Your task to perform on an android device: Show me productivity apps on the Play Store Image 0: 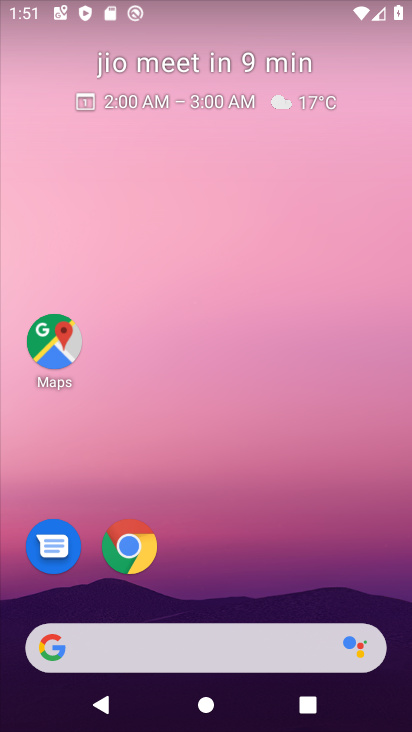
Step 0: drag from (347, 568) to (325, 63)
Your task to perform on an android device: Show me productivity apps on the Play Store Image 1: 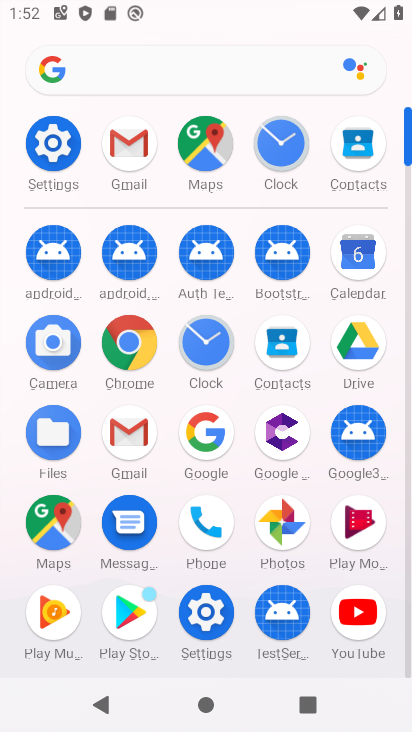
Step 1: click (126, 608)
Your task to perform on an android device: Show me productivity apps on the Play Store Image 2: 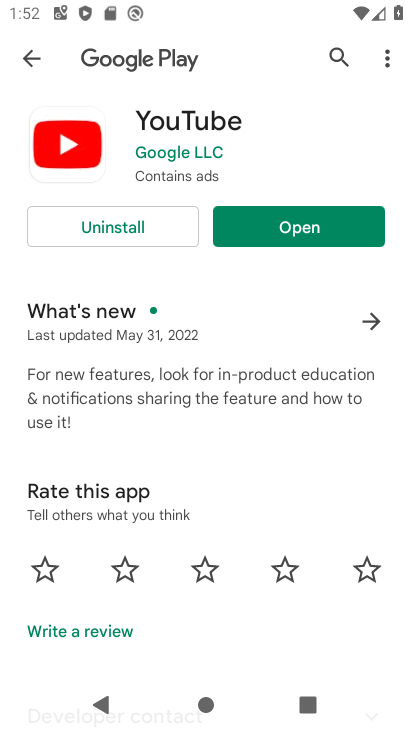
Step 2: click (29, 70)
Your task to perform on an android device: Show me productivity apps on the Play Store Image 3: 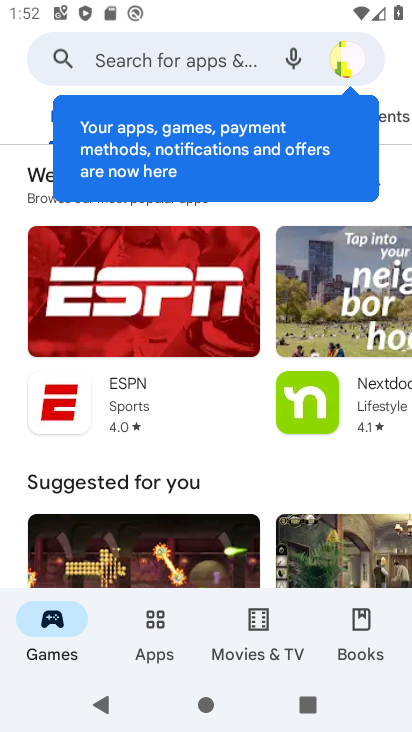
Step 3: click (232, 70)
Your task to perform on an android device: Show me productivity apps on the Play Store Image 4: 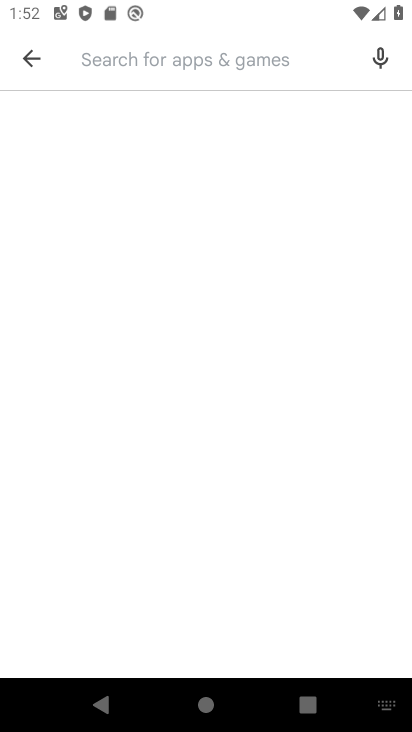
Step 4: click (46, 66)
Your task to perform on an android device: Show me productivity apps on the Play Store Image 5: 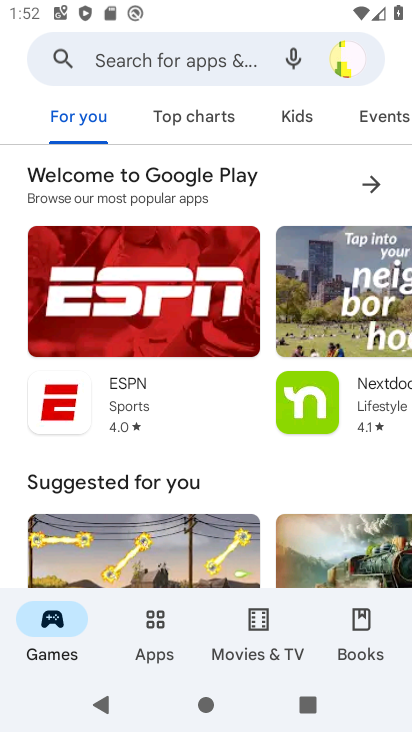
Step 5: click (174, 126)
Your task to perform on an android device: Show me productivity apps on the Play Store Image 6: 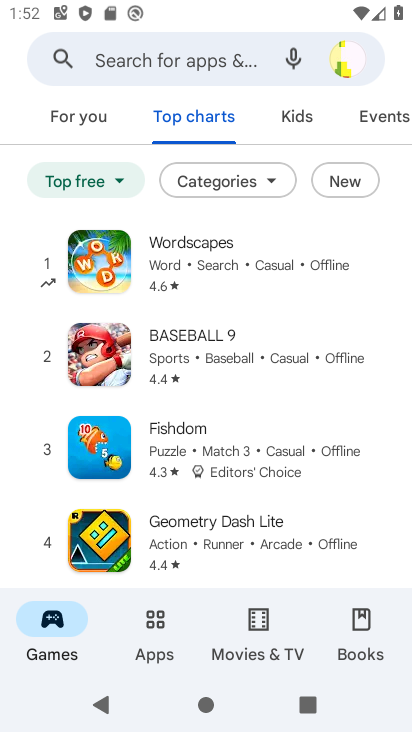
Step 6: click (184, 618)
Your task to perform on an android device: Show me productivity apps on the Play Store Image 7: 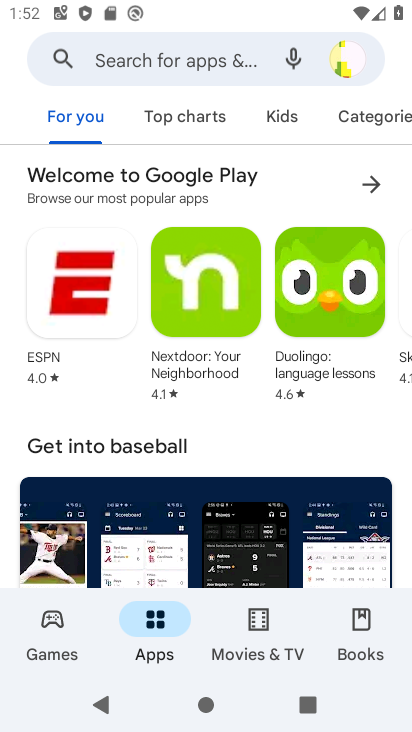
Step 7: click (202, 122)
Your task to perform on an android device: Show me productivity apps on the Play Store Image 8: 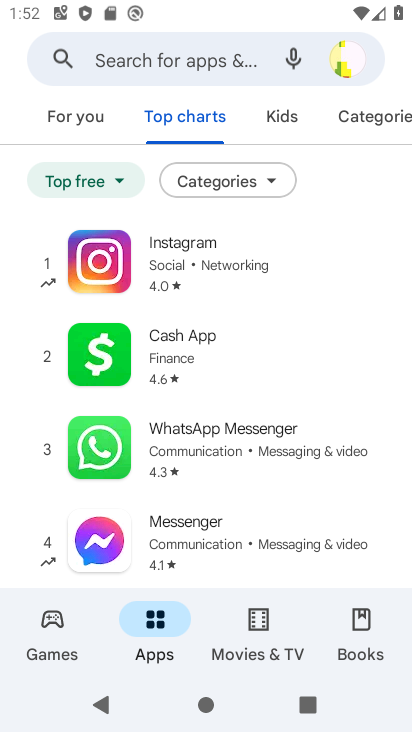
Step 8: task complete